Your task to perform on an android device: check battery use Image 0: 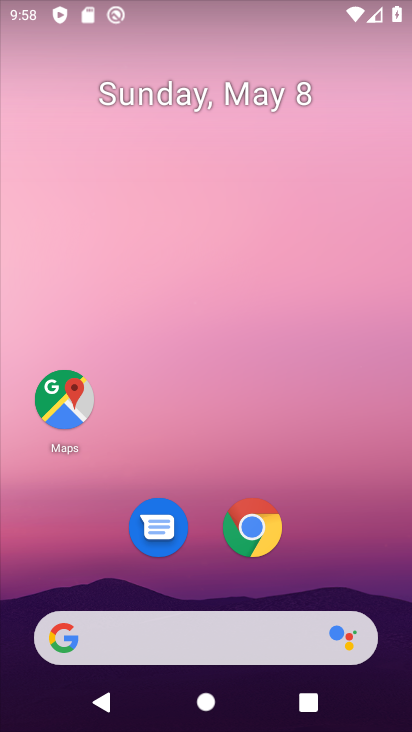
Step 0: drag from (334, 515) to (326, 143)
Your task to perform on an android device: check battery use Image 1: 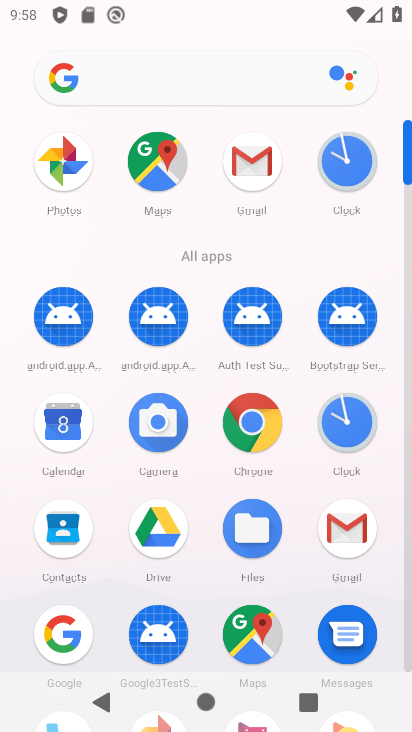
Step 1: drag from (305, 608) to (307, 233)
Your task to perform on an android device: check battery use Image 2: 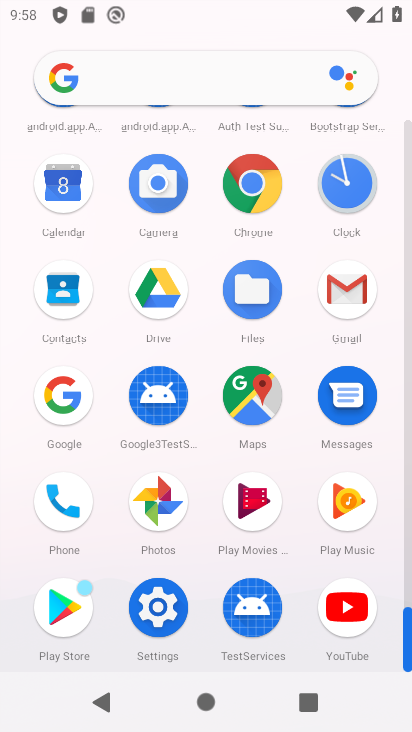
Step 2: click (170, 610)
Your task to perform on an android device: check battery use Image 3: 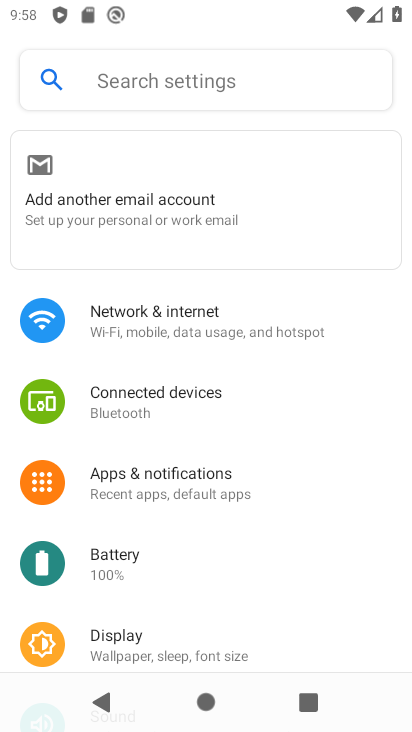
Step 3: click (177, 558)
Your task to perform on an android device: check battery use Image 4: 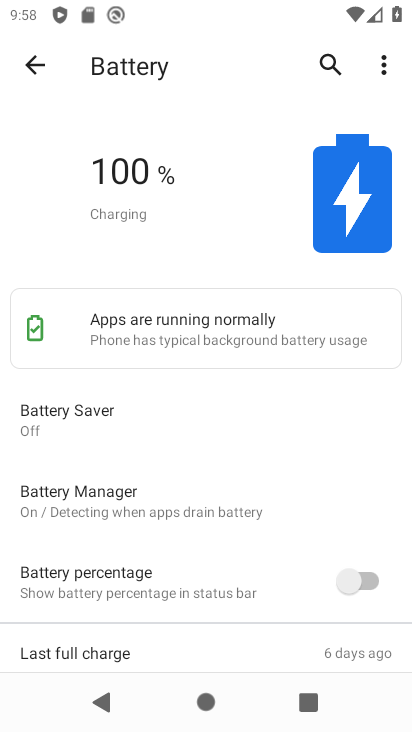
Step 4: task complete